Your task to perform on an android device: open app "DoorDash - Food Delivery" (install if not already installed) and enter user name: "Richard@outlook.com" and password: "informally" Image 0: 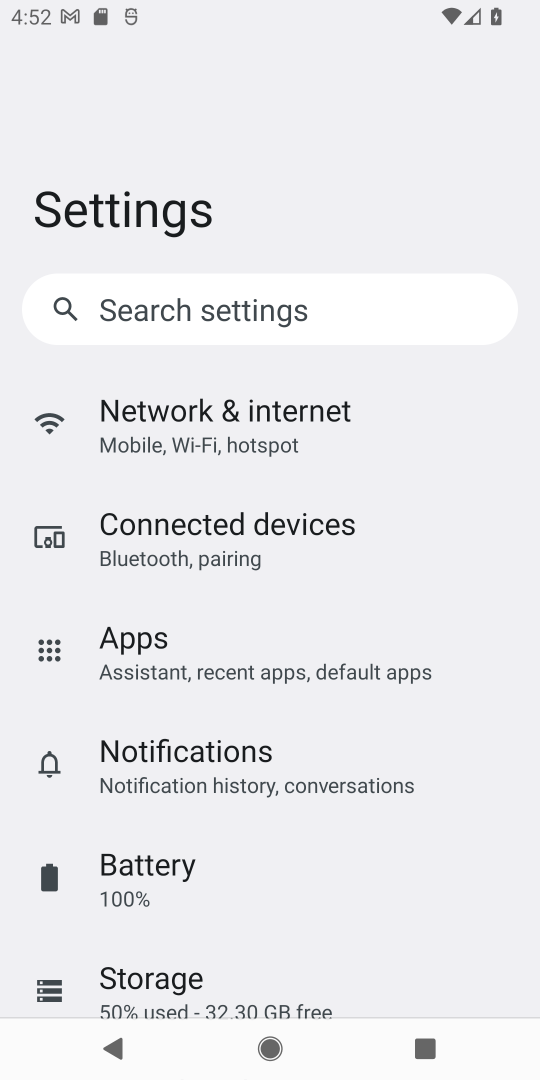
Step 0: press home button
Your task to perform on an android device: open app "DoorDash - Food Delivery" (install if not already installed) and enter user name: "Richard@outlook.com" and password: "informally" Image 1: 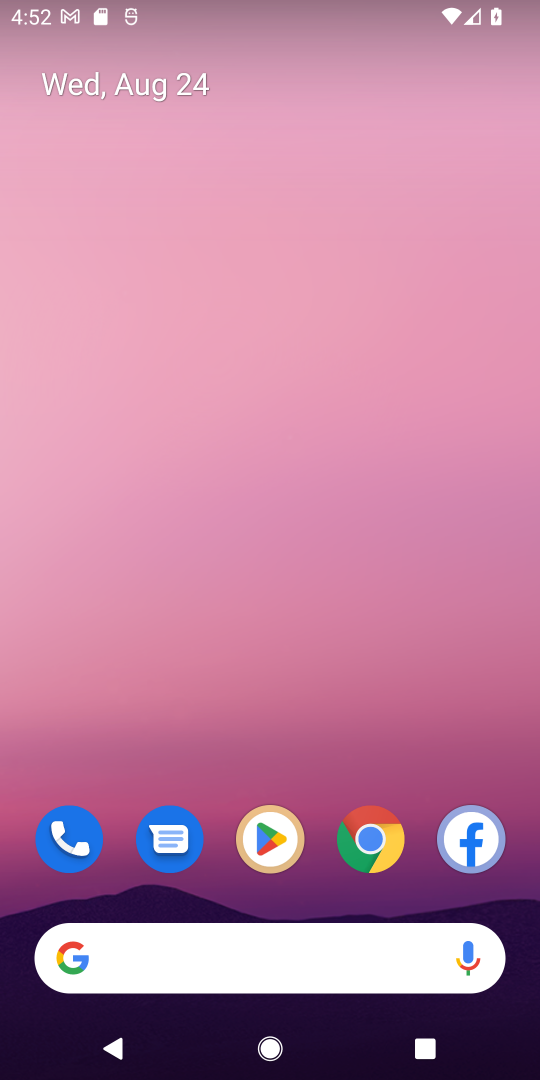
Step 1: click (280, 842)
Your task to perform on an android device: open app "DoorDash - Food Delivery" (install if not already installed) and enter user name: "Richard@outlook.com" and password: "informally" Image 2: 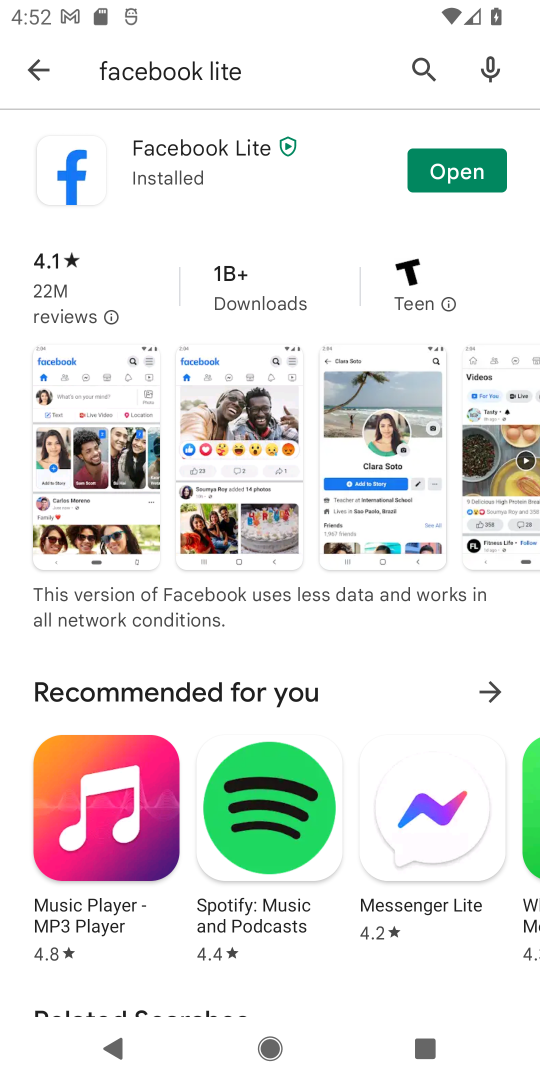
Step 2: click (415, 66)
Your task to perform on an android device: open app "DoorDash - Food Delivery" (install if not already installed) and enter user name: "Richard@outlook.com" and password: "informally" Image 3: 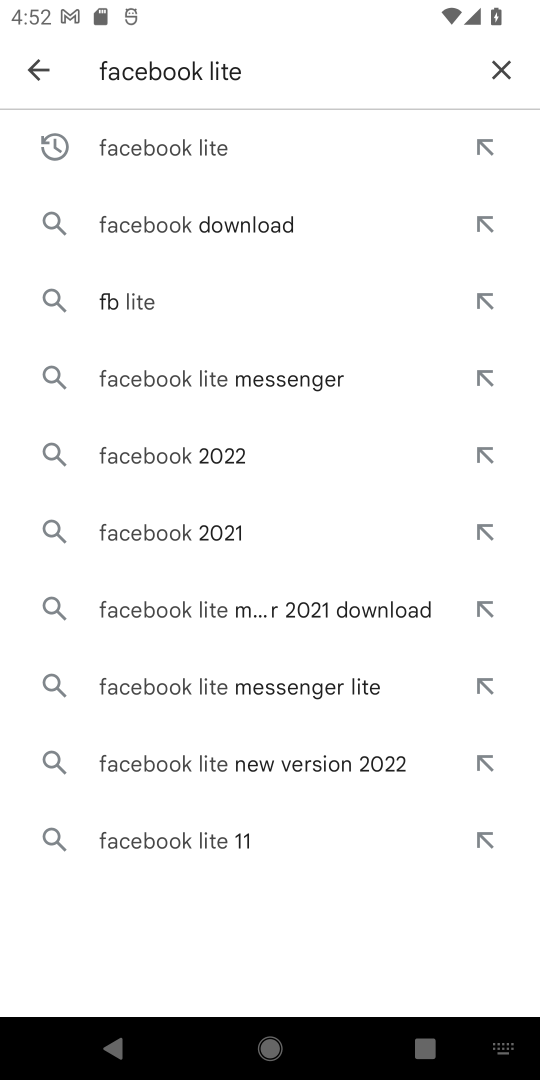
Step 3: click (496, 66)
Your task to perform on an android device: open app "DoorDash - Food Delivery" (install if not already installed) and enter user name: "Richard@outlook.com" and password: "informally" Image 4: 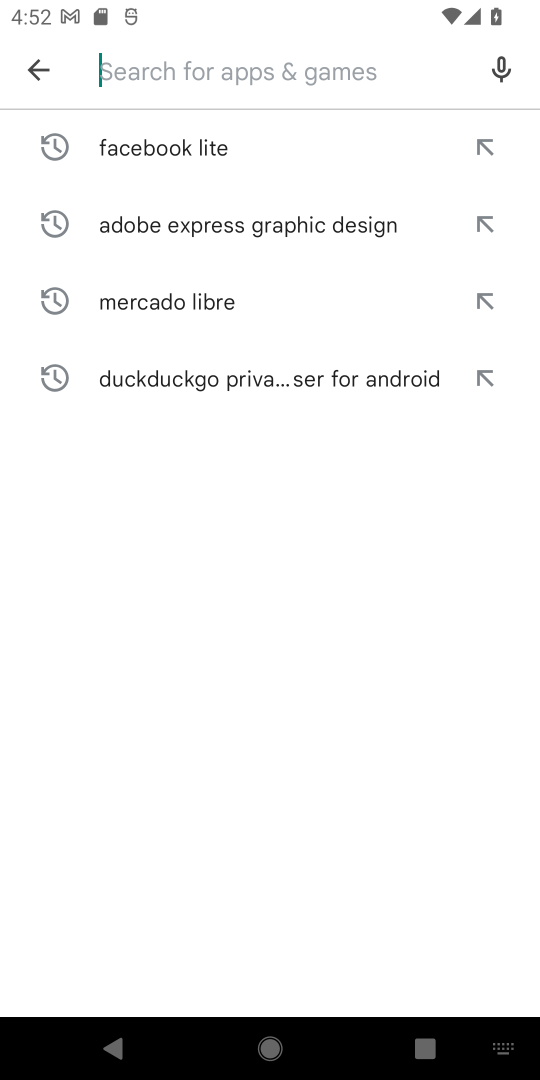
Step 4: type "DoorDash - Food Delivery"
Your task to perform on an android device: open app "DoorDash - Food Delivery" (install if not already installed) and enter user name: "Richard@outlook.com" and password: "informally" Image 5: 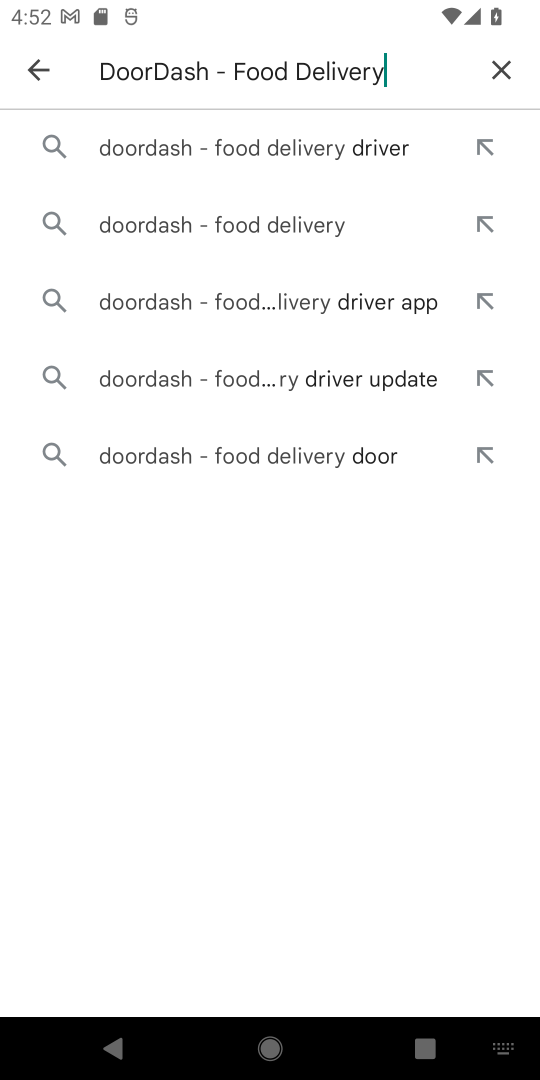
Step 5: click (210, 148)
Your task to perform on an android device: open app "DoorDash - Food Delivery" (install if not already installed) and enter user name: "Richard@outlook.com" and password: "informally" Image 6: 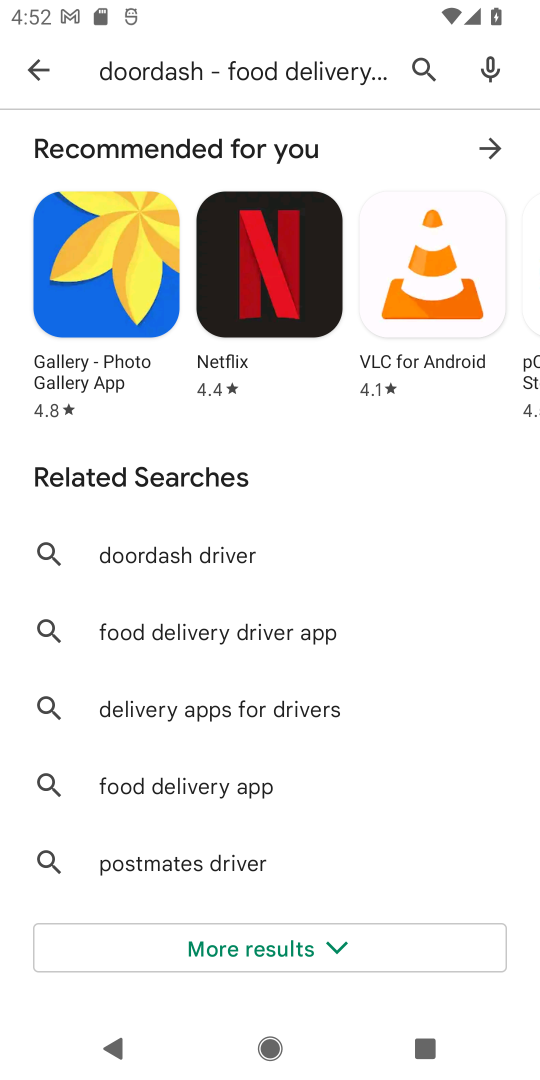
Step 6: click (416, 61)
Your task to perform on an android device: open app "DoorDash - Food Delivery" (install if not already installed) and enter user name: "Richard@outlook.com" and password: "informally" Image 7: 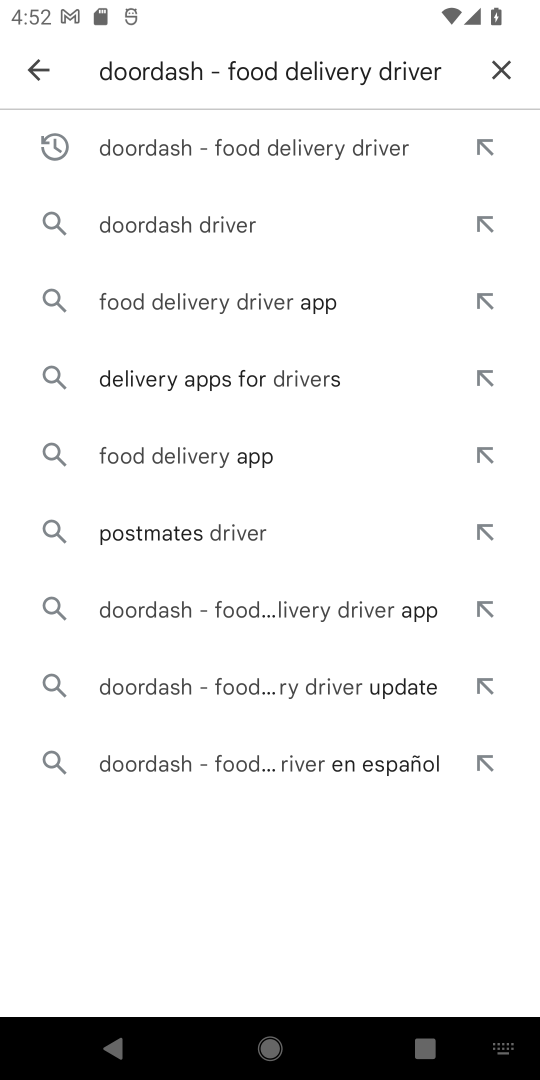
Step 7: click (503, 62)
Your task to perform on an android device: open app "DoorDash - Food Delivery" (install if not already installed) and enter user name: "Richard@outlook.com" and password: "informally" Image 8: 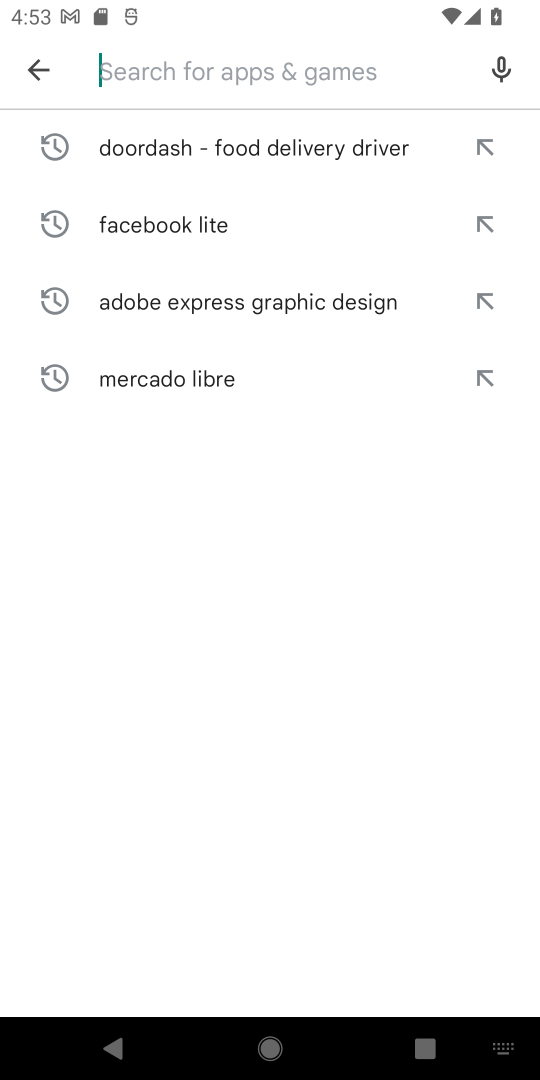
Step 8: type "DoorDash - Food Delivery"
Your task to perform on an android device: open app "DoorDash - Food Delivery" (install if not already installed) and enter user name: "Richard@outlook.com" and password: "informally" Image 9: 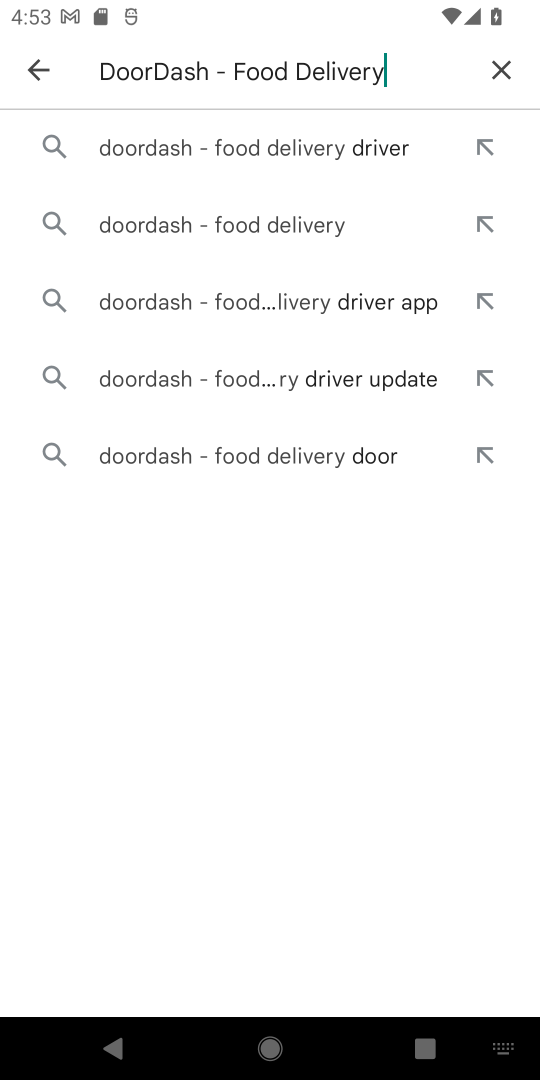
Step 9: click (320, 159)
Your task to perform on an android device: open app "DoorDash - Food Delivery" (install if not already installed) and enter user name: "Richard@outlook.com" and password: "informally" Image 10: 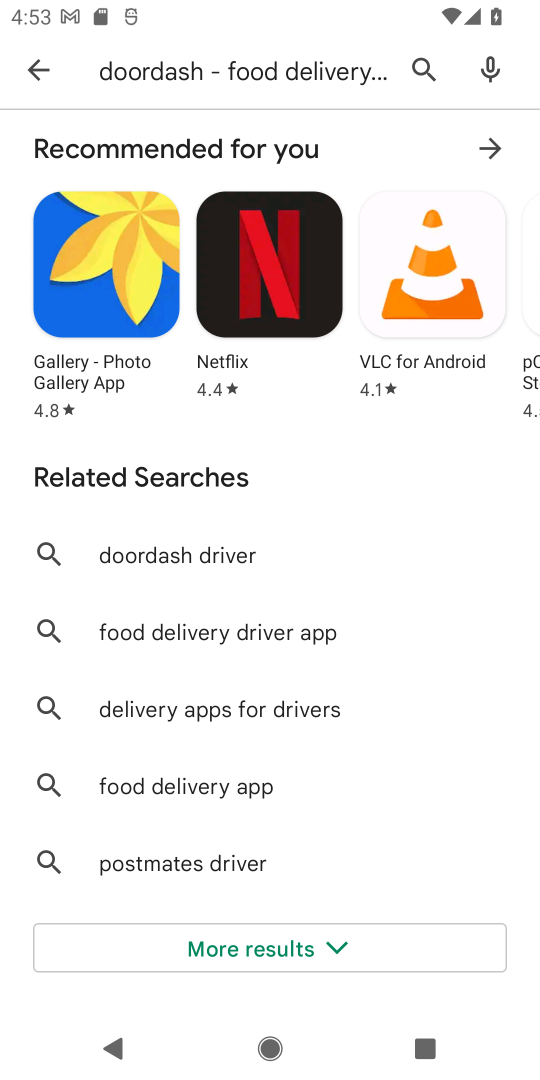
Step 10: task complete